Your task to perform on an android device: Clear all items from cart on ebay. Search for "usb-a to usb-b" on ebay, select the first entry, and add it to the cart. Image 0: 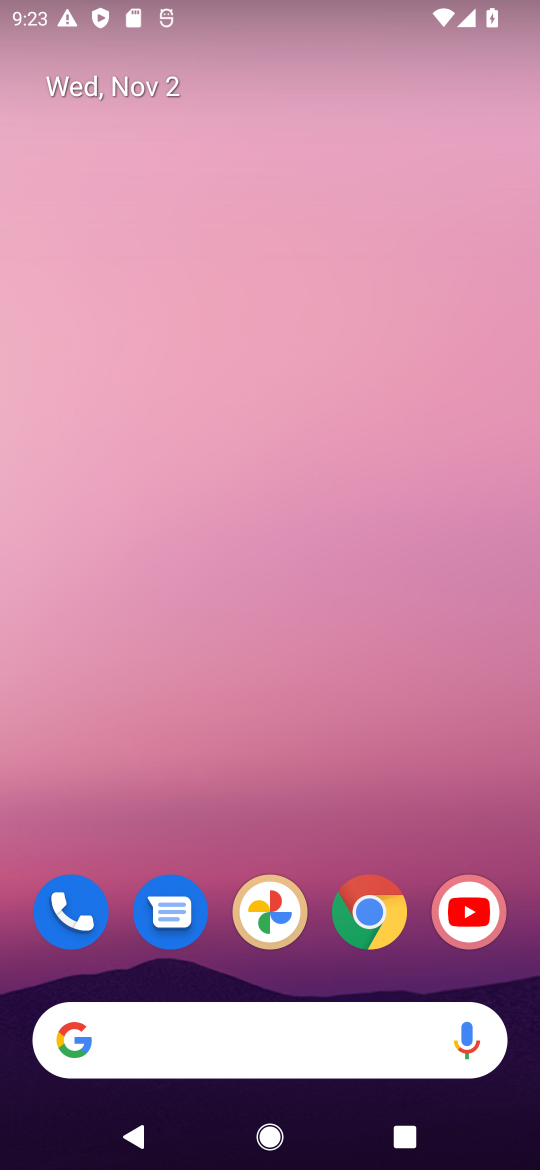
Step 0: drag from (348, 1118) to (322, 86)
Your task to perform on an android device: Clear all items from cart on ebay. Search for "usb-a to usb-b" on ebay, select the first entry, and add it to the cart. Image 1: 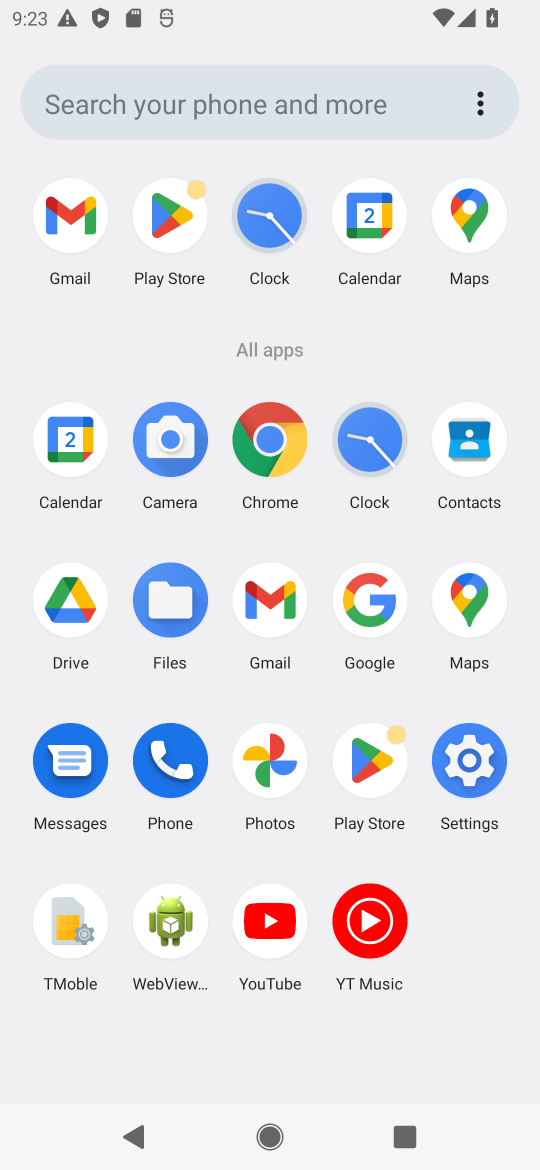
Step 1: click (272, 447)
Your task to perform on an android device: Clear all items from cart on ebay. Search for "usb-a to usb-b" on ebay, select the first entry, and add it to the cart. Image 2: 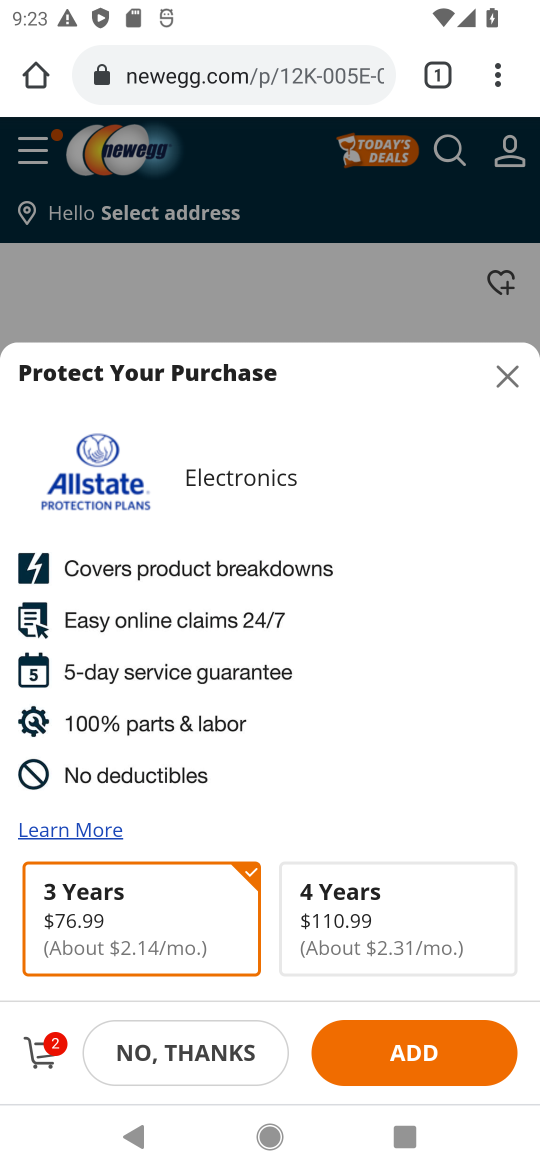
Step 2: click (253, 73)
Your task to perform on an android device: Clear all items from cart on ebay. Search for "usb-a to usb-b" on ebay, select the first entry, and add it to the cart. Image 3: 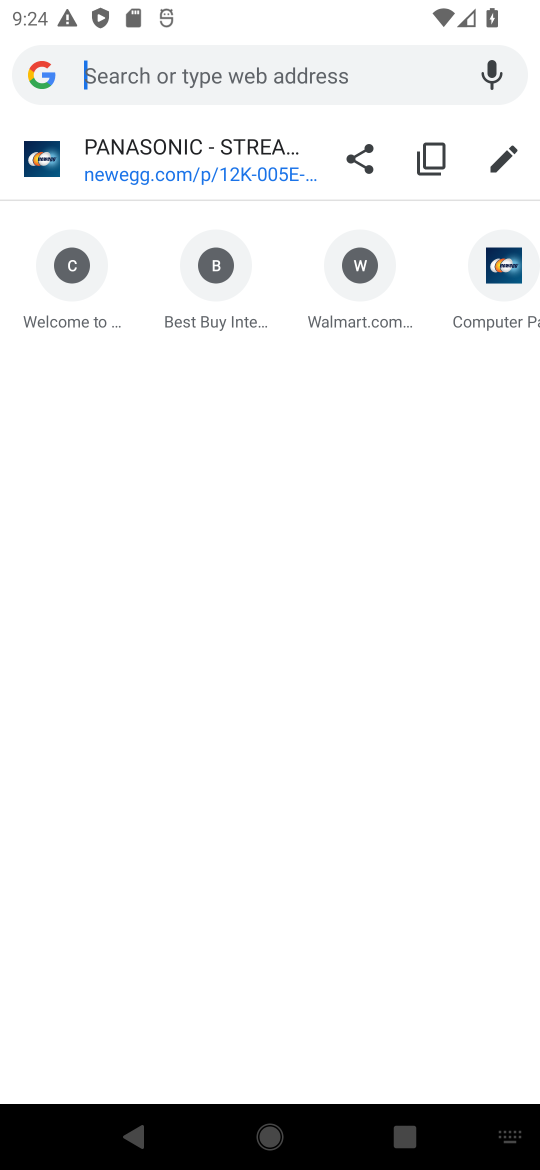
Step 3: type "ebay"
Your task to perform on an android device: Clear all items from cart on ebay. Search for "usb-a to usb-b" on ebay, select the first entry, and add it to the cart. Image 4: 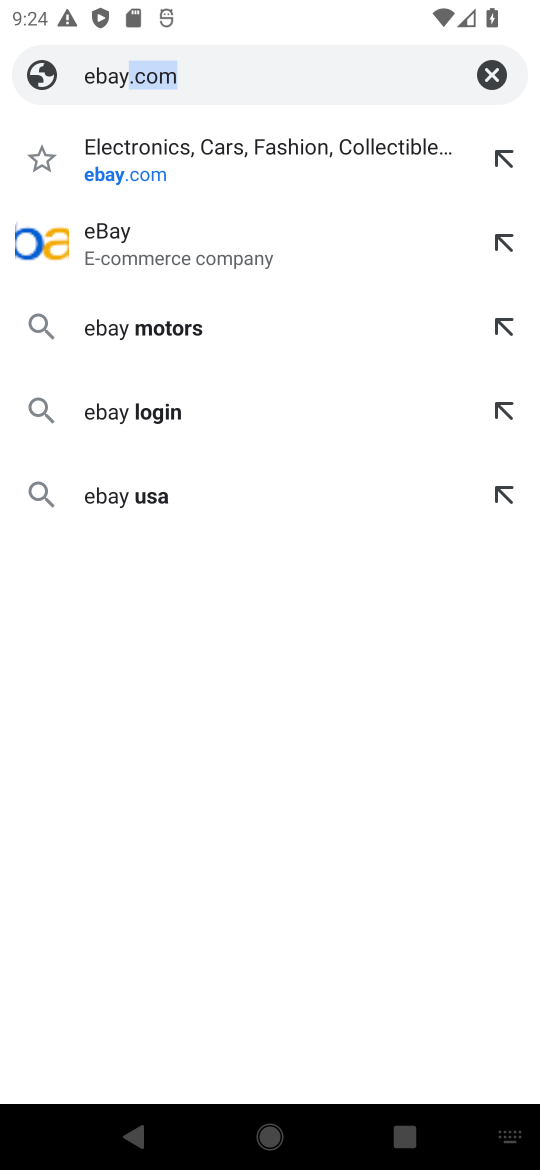
Step 4: click (140, 179)
Your task to perform on an android device: Clear all items from cart on ebay. Search for "usb-a to usb-b" on ebay, select the first entry, and add it to the cart. Image 5: 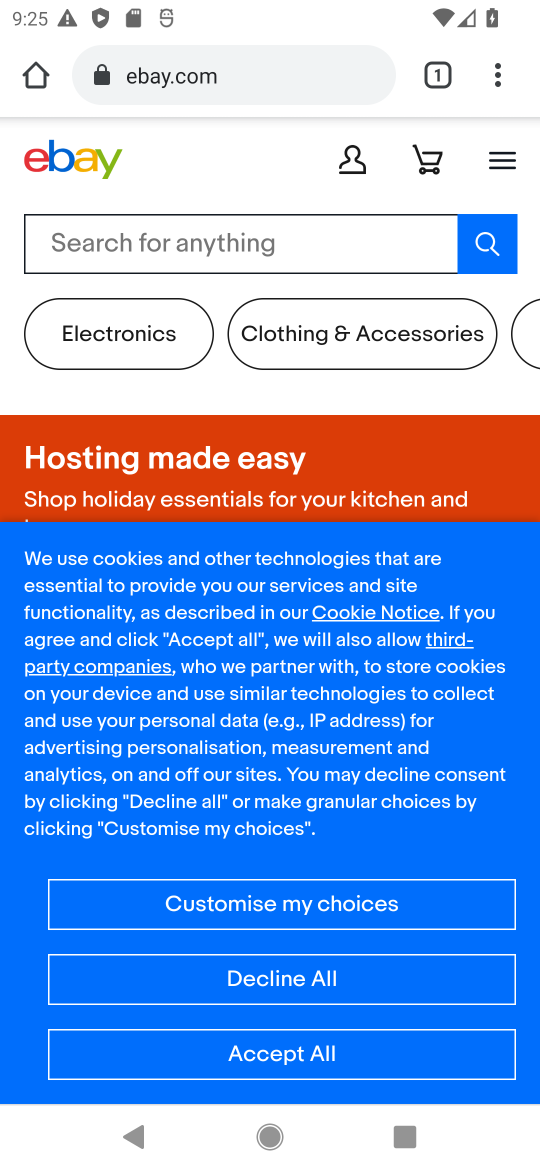
Step 5: click (201, 242)
Your task to perform on an android device: Clear all items from cart on ebay. Search for "usb-a to usb-b" on ebay, select the first entry, and add it to the cart. Image 6: 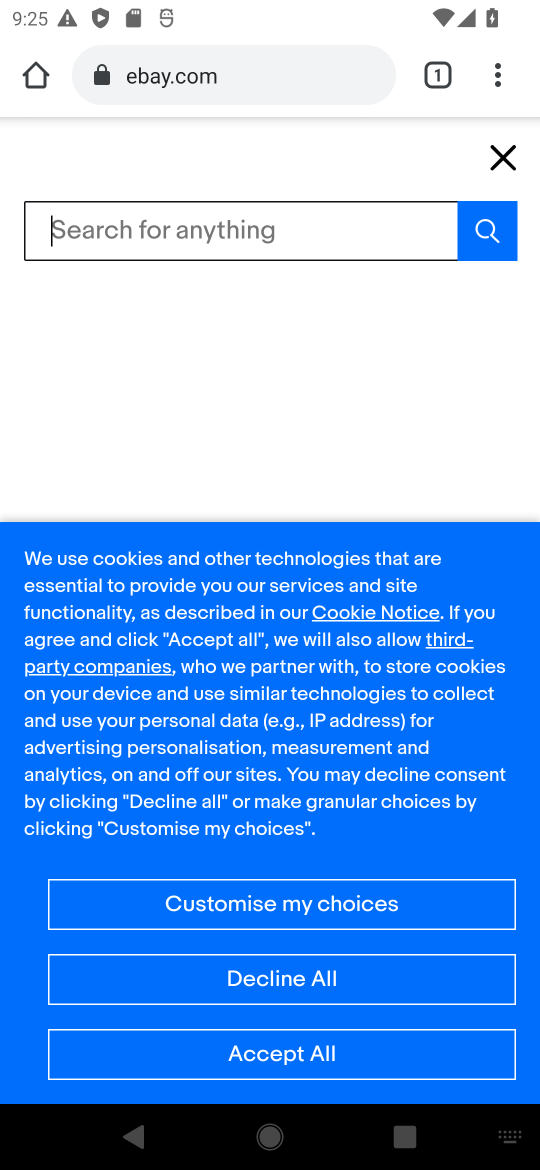
Step 6: type "usb-a to usb-b"
Your task to perform on an android device: Clear all items from cart on ebay. Search for "usb-a to usb-b" on ebay, select the first entry, and add it to the cart. Image 7: 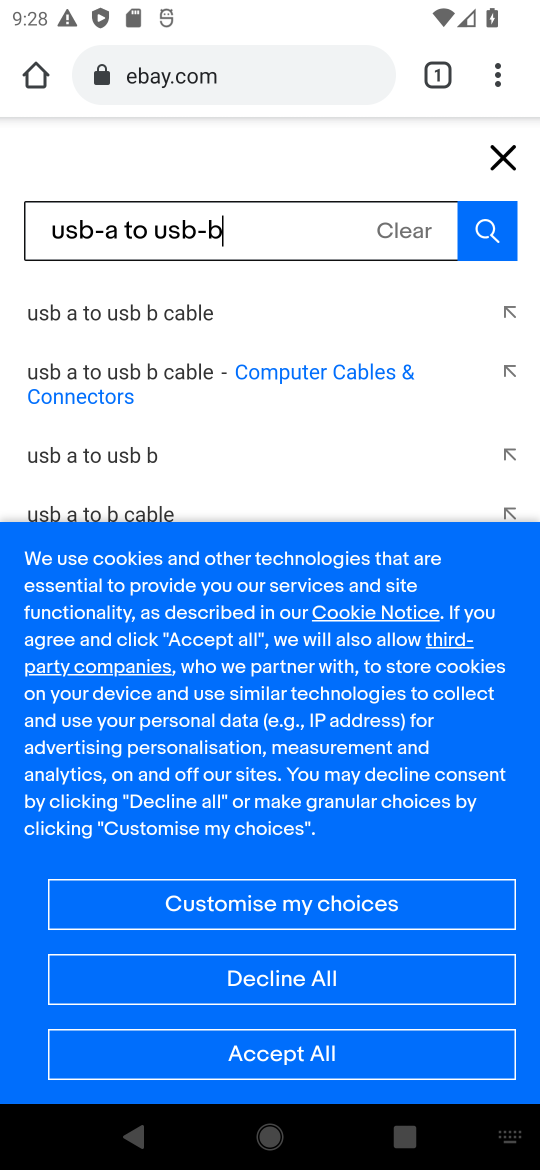
Step 7: click (492, 223)
Your task to perform on an android device: Clear all items from cart on ebay. Search for "usb-a to usb-b" on ebay, select the first entry, and add it to the cart. Image 8: 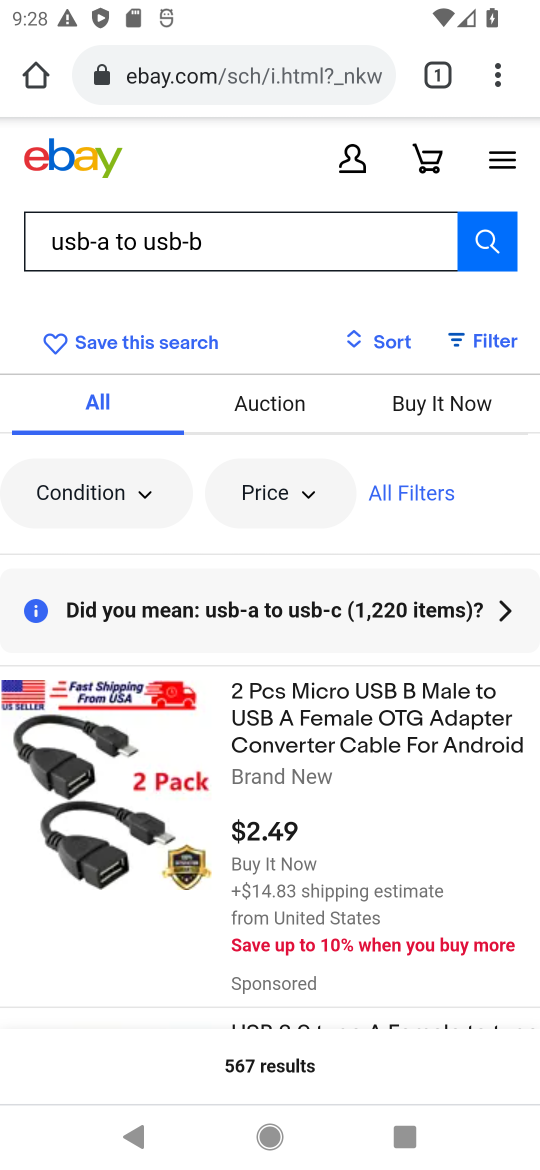
Step 8: click (190, 789)
Your task to perform on an android device: Clear all items from cart on ebay. Search for "usb-a to usb-b" on ebay, select the first entry, and add it to the cart. Image 9: 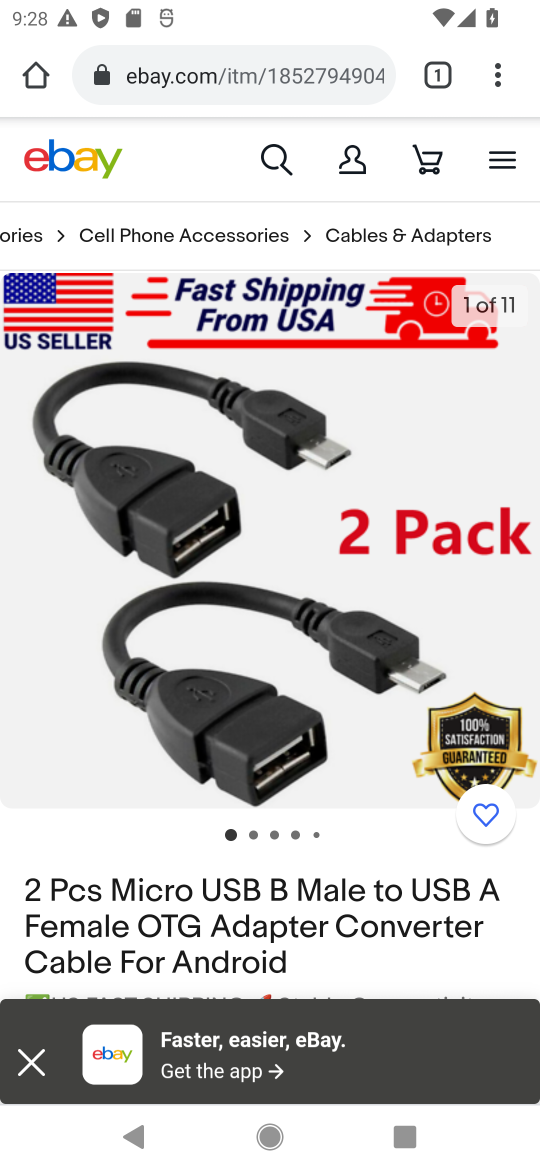
Step 9: drag from (279, 816) to (270, 306)
Your task to perform on an android device: Clear all items from cart on ebay. Search for "usb-a to usb-b" on ebay, select the first entry, and add it to the cart. Image 10: 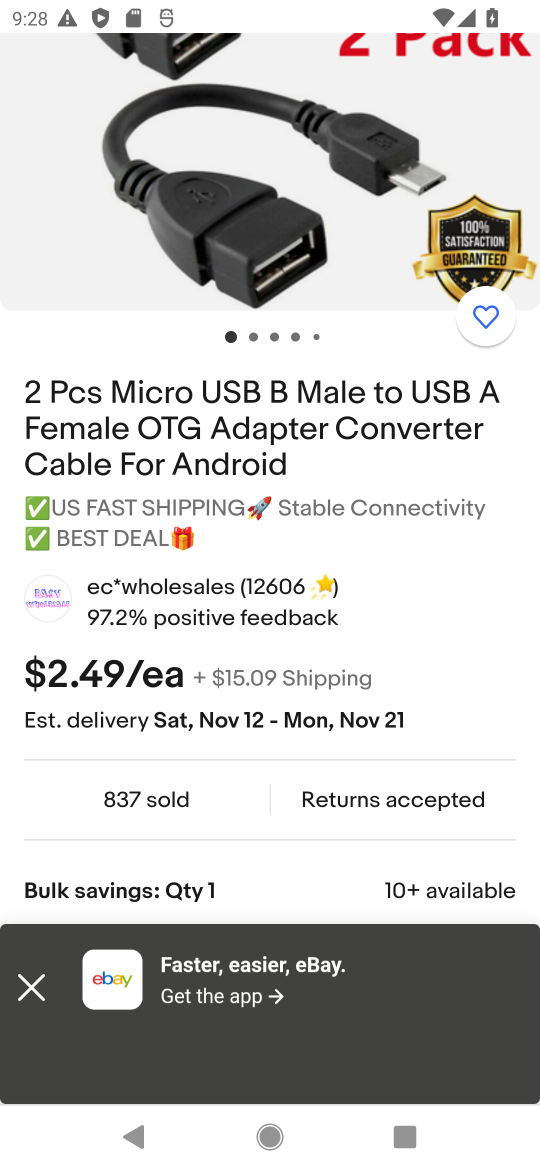
Step 10: drag from (369, 789) to (363, 201)
Your task to perform on an android device: Clear all items from cart on ebay. Search for "usb-a to usb-b" on ebay, select the first entry, and add it to the cart. Image 11: 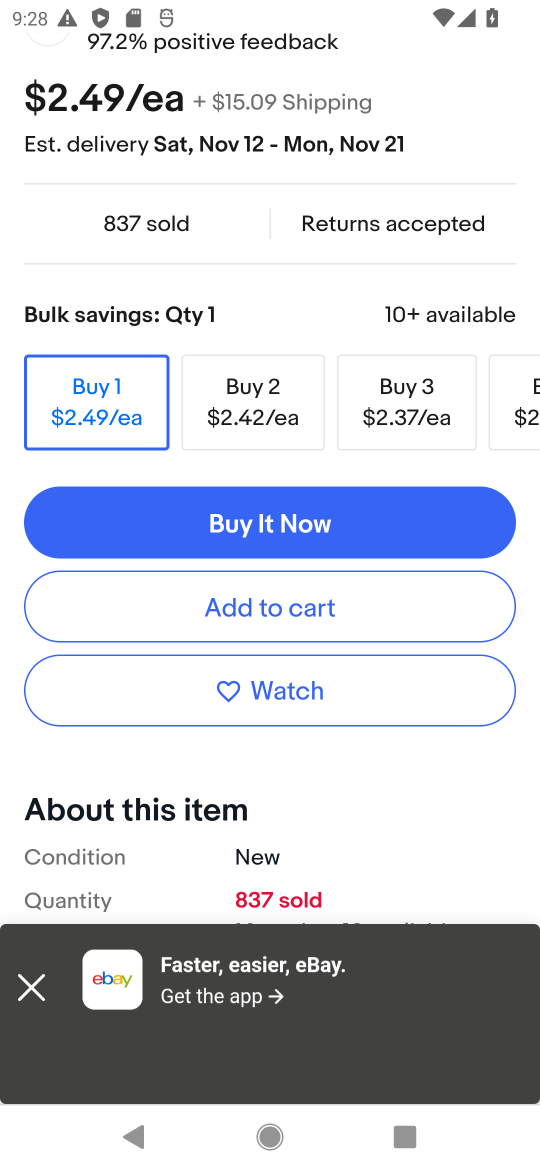
Step 11: click (295, 610)
Your task to perform on an android device: Clear all items from cart on ebay. Search for "usb-a to usb-b" on ebay, select the first entry, and add it to the cart. Image 12: 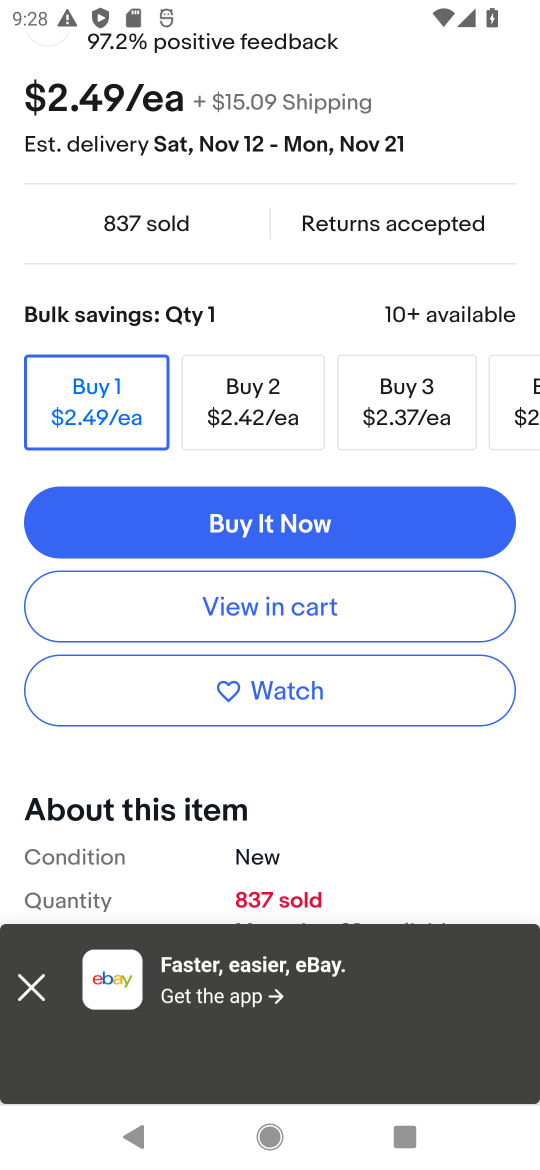
Step 12: task complete